Your task to perform on an android device: open device folders in google photos Image 0: 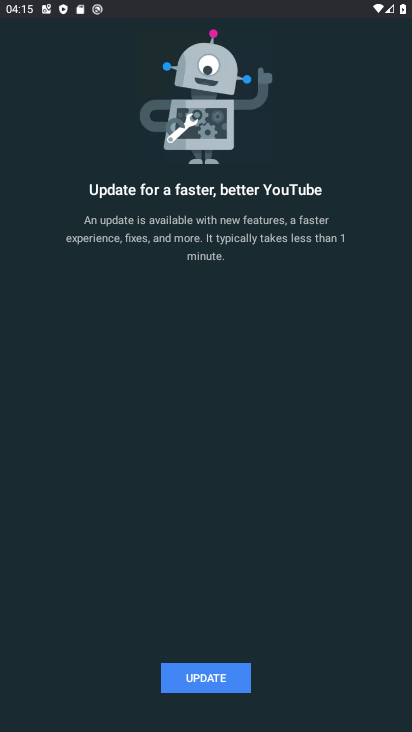
Step 0: press home button
Your task to perform on an android device: open device folders in google photos Image 1: 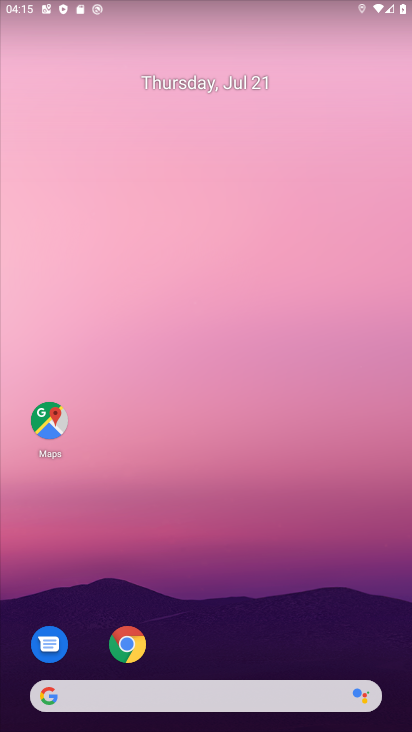
Step 1: drag from (251, 673) to (222, 0)
Your task to perform on an android device: open device folders in google photos Image 2: 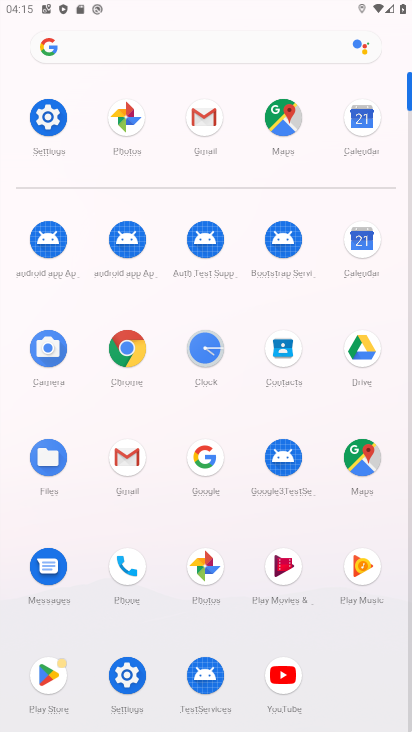
Step 2: click (127, 117)
Your task to perform on an android device: open device folders in google photos Image 3: 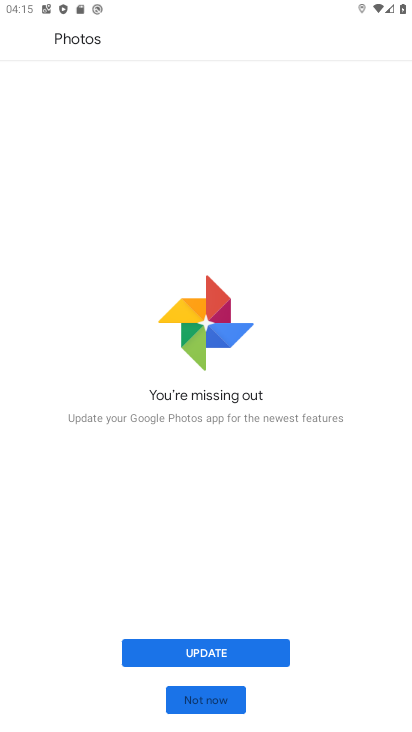
Step 3: click (205, 702)
Your task to perform on an android device: open device folders in google photos Image 4: 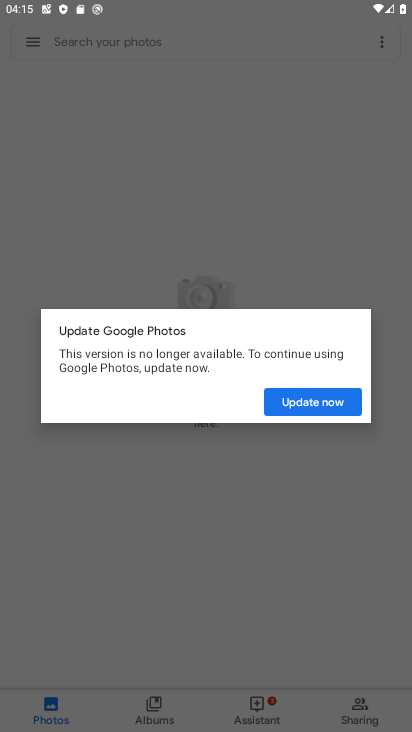
Step 4: click (309, 410)
Your task to perform on an android device: open device folders in google photos Image 5: 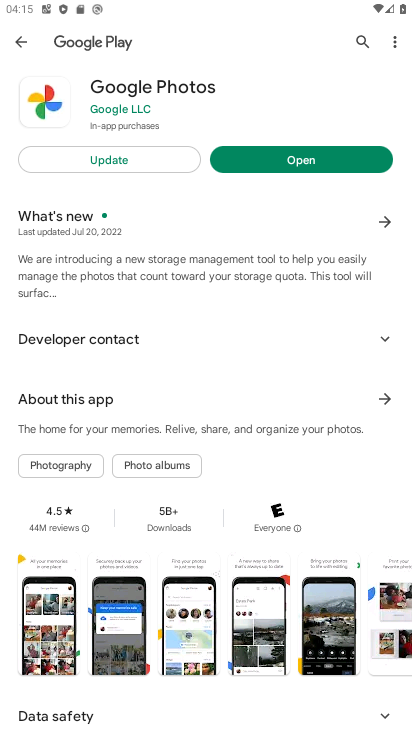
Step 5: click (252, 166)
Your task to perform on an android device: open device folders in google photos Image 6: 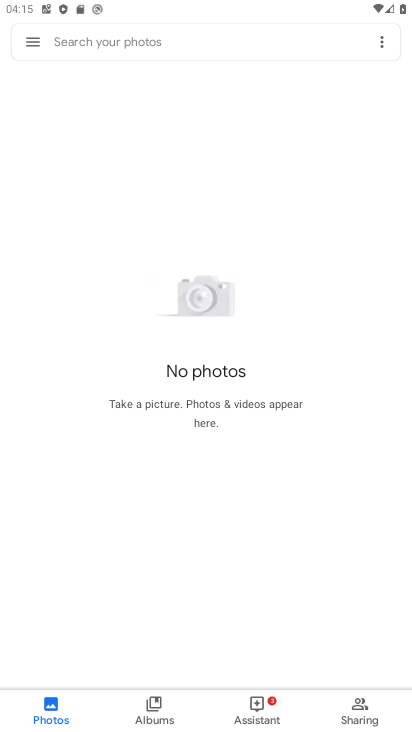
Step 6: click (32, 40)
Your task to perform on an android device: open device folders in google photos Image 7: 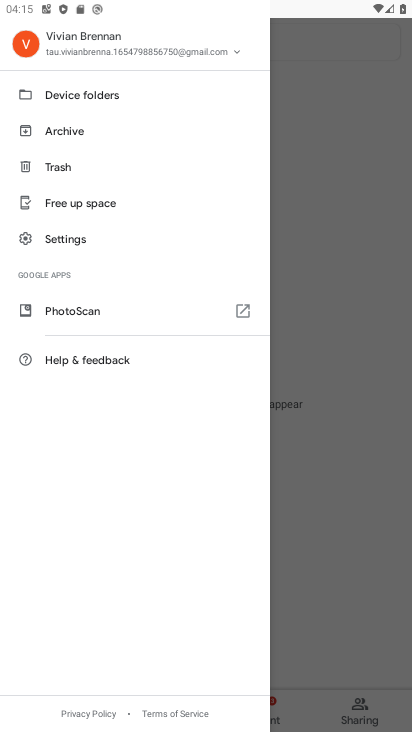
Step 7: click (56, 98)
Your task to perform on an android device: open device folders in google photos Image 8: 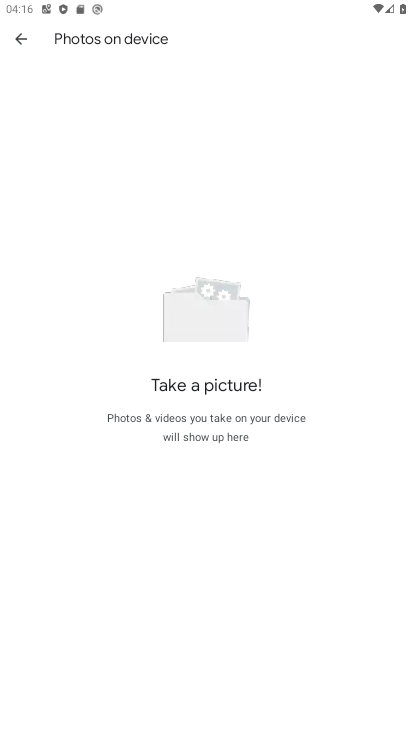
Step 8: task complete